Your task to perform on an android device: make emails show in primary in the gmail app Image 0: 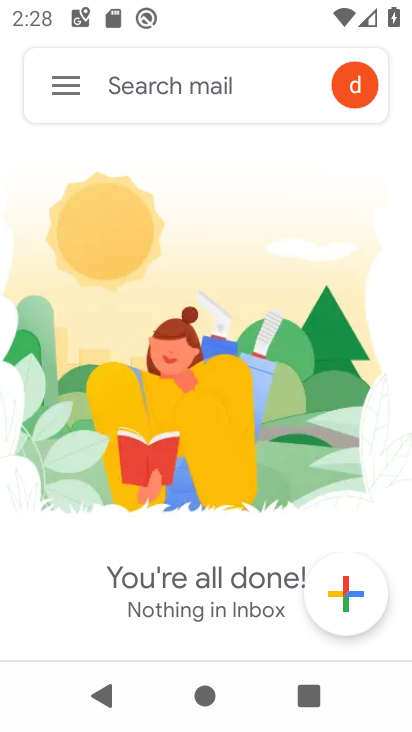
Step 0: press home button
Your task to perform on an android device: make emails show in primary in the gmail app Image 1: 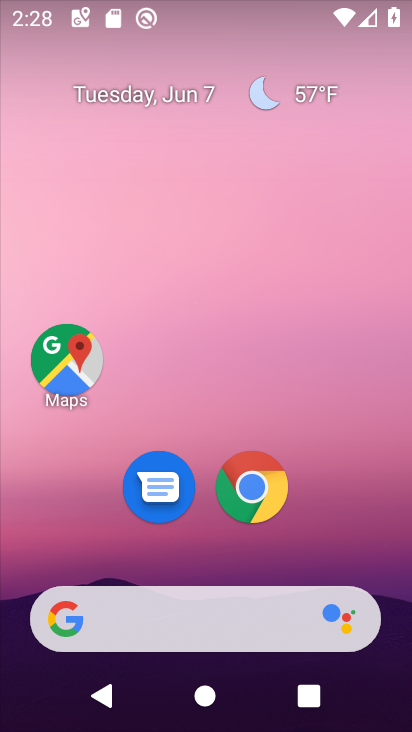
Step 1: drag from (193, 555) to (112, 17)
Your task to perform on an android device: make emails show in primary in the gmail app Image 2: 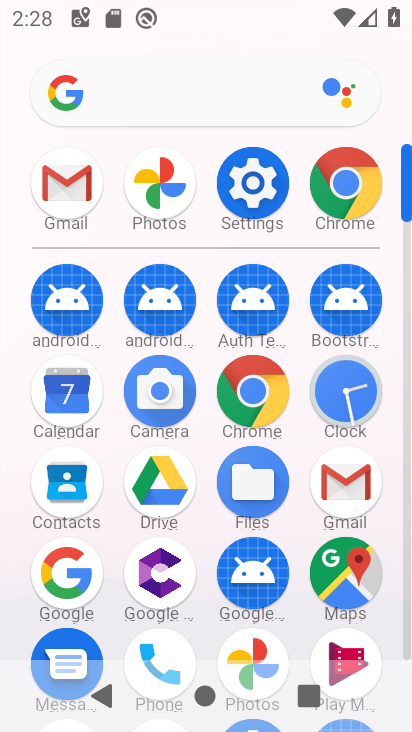
Step 2: click (354, 472)
Your task to perform on an android device: make emails show in primary in the gmail app Image 3: 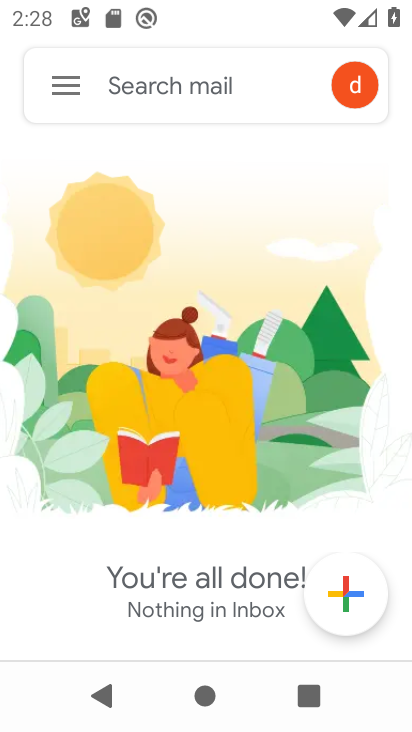
Step 3: click (65, 84)
Your task to perform on an android device: make emails show in primary in the gmail app Image 4: 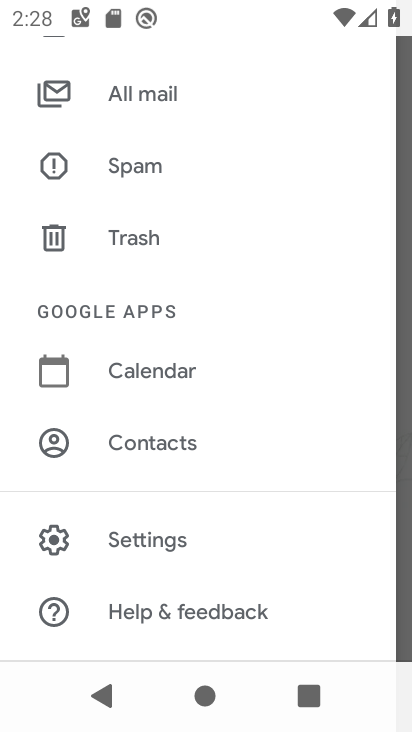
Step 4: task complete